Your task to perform on an android device: turn notification dots on Image 0: 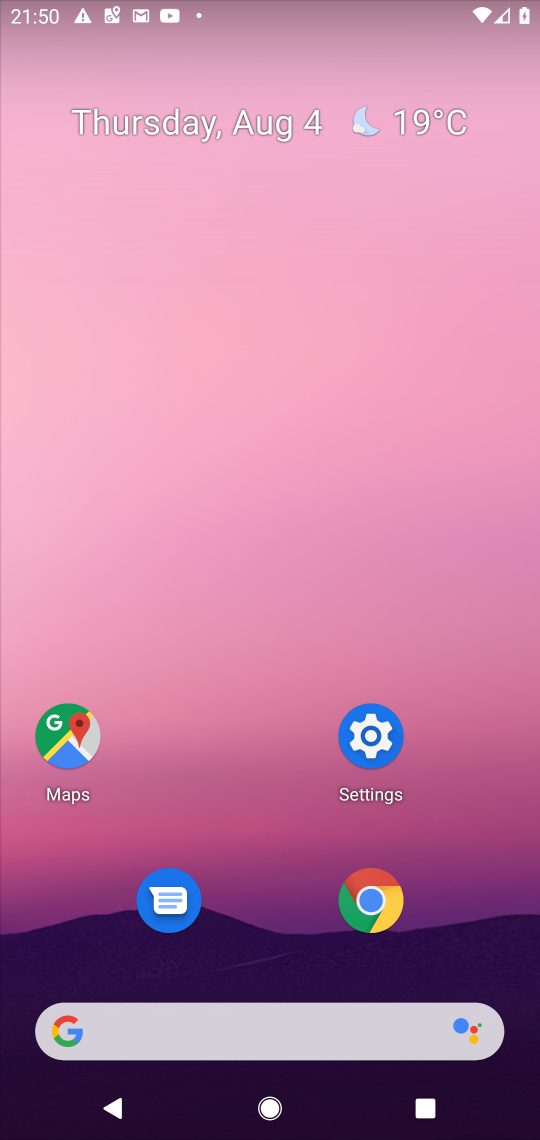
Step 0: press home button
Your task to perform on an android device: turn notification dots on Image 1: 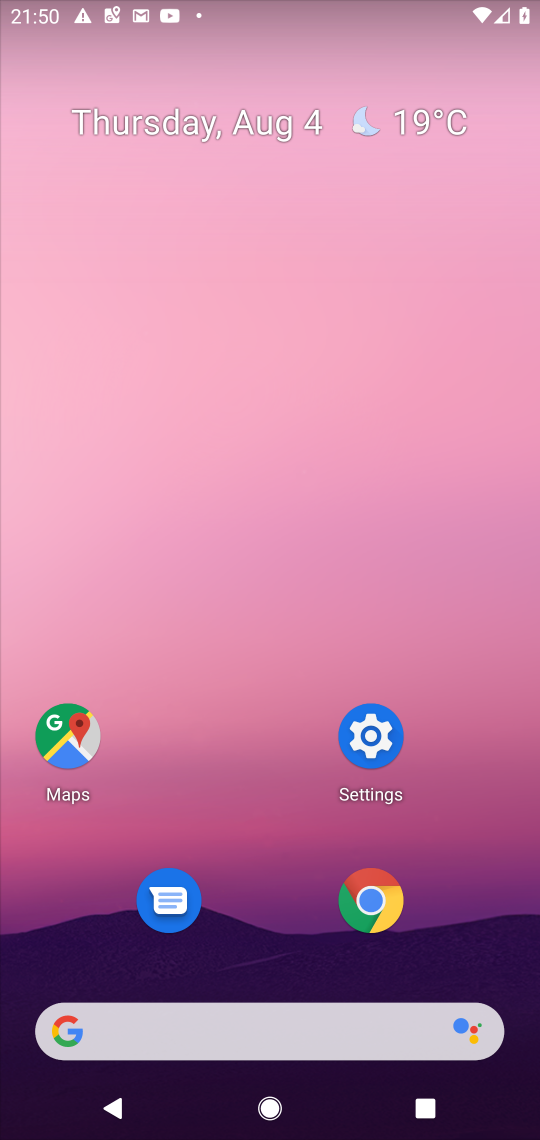
Step 1: click (365, 740)
Your task to perform on an android device: turn notification dots on Image 2: 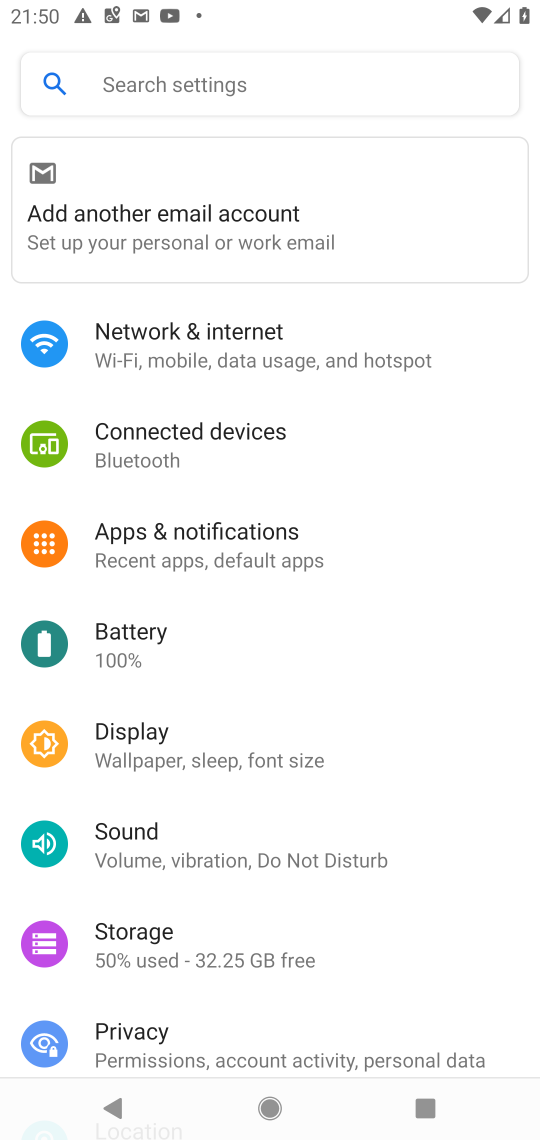
Step 2: click (214, 542)
Your task to perform on an android device: turn notification dots on Image 3: 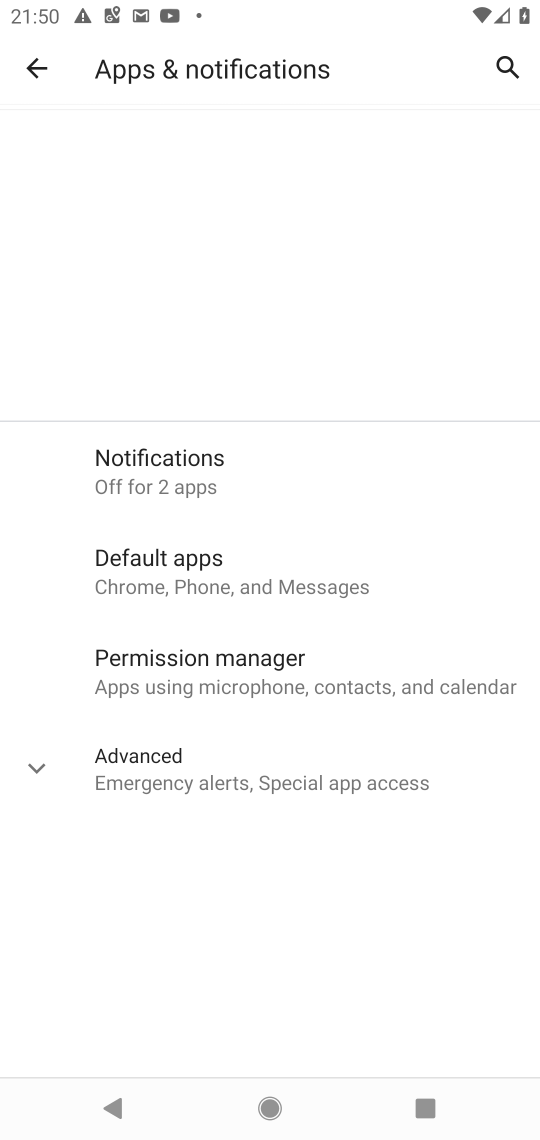
Step 3: click (167, 451)
Your task to perform on an android device: turn notification dots on Image 4: 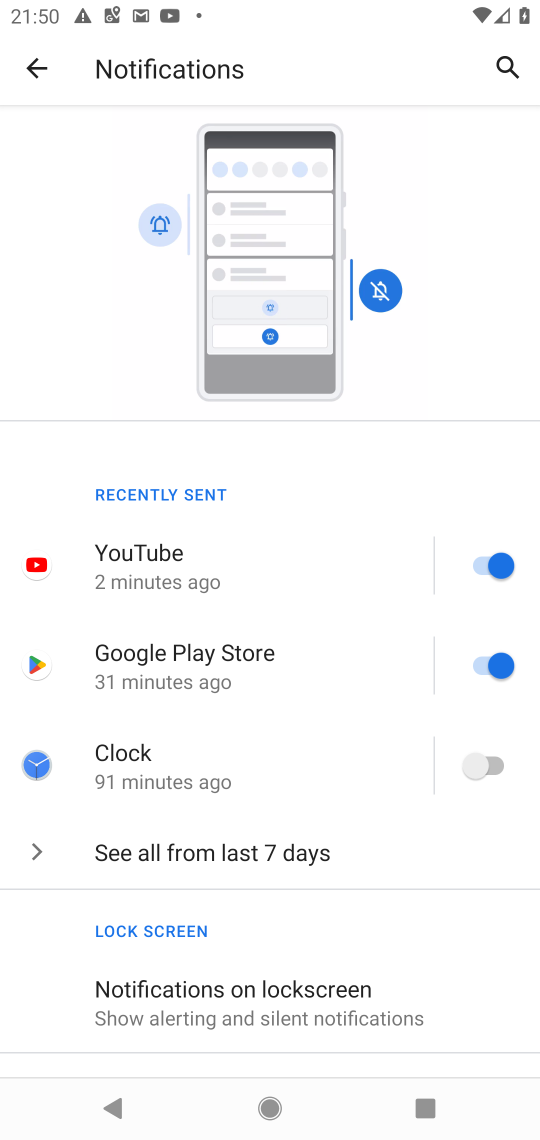
Step 4: drag from (308, 914) to (525, 247)
Your task to perform on an android device: turn notification dots on Image 5: 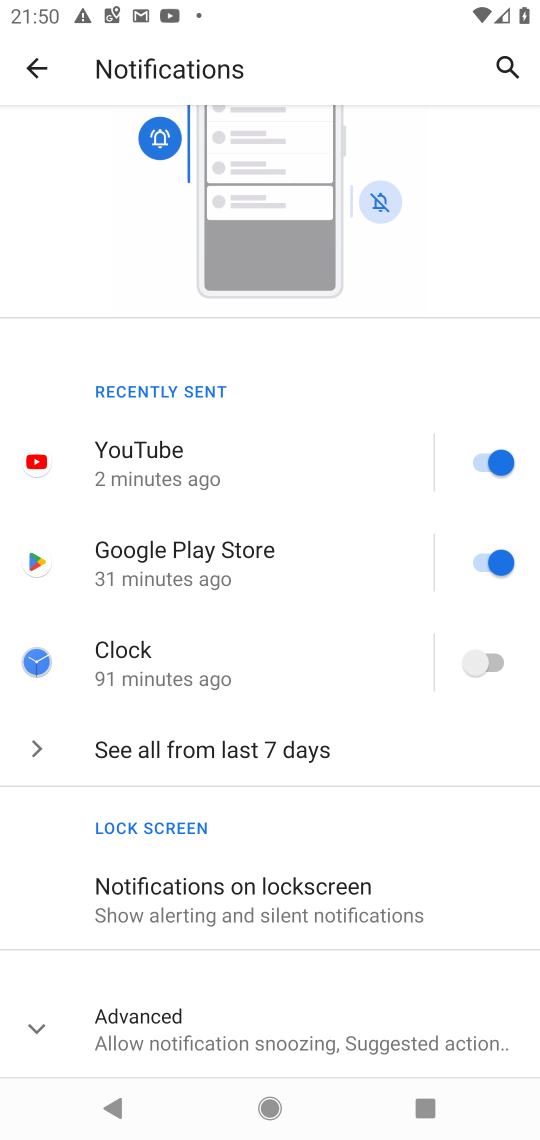
Step 5: click (230, 1024)
Your task to perform on an android device: turn notification dots on Image 6: 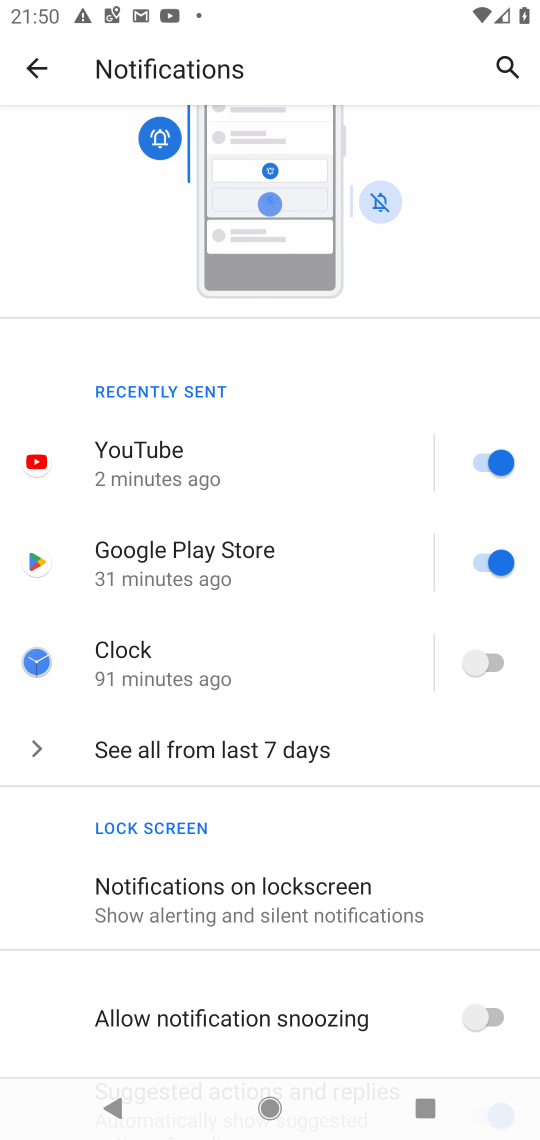
Step 6: task complete